Your task to perform on an android device: Go to settings Image 0: 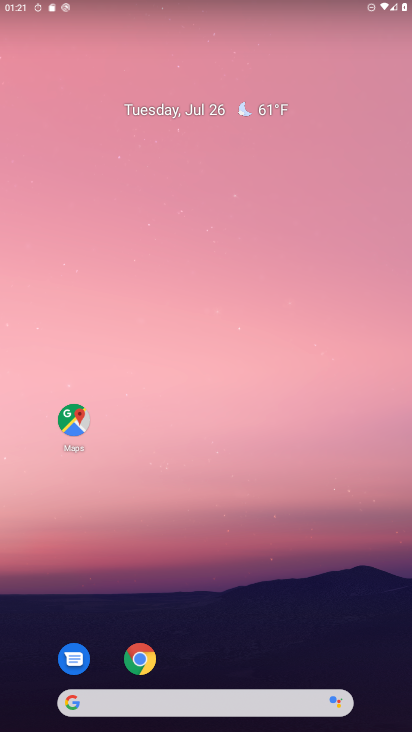
Step 0: drag from (96, 562) to (196, 373)
Your task to perform on an android device: Go to settings Image 1: 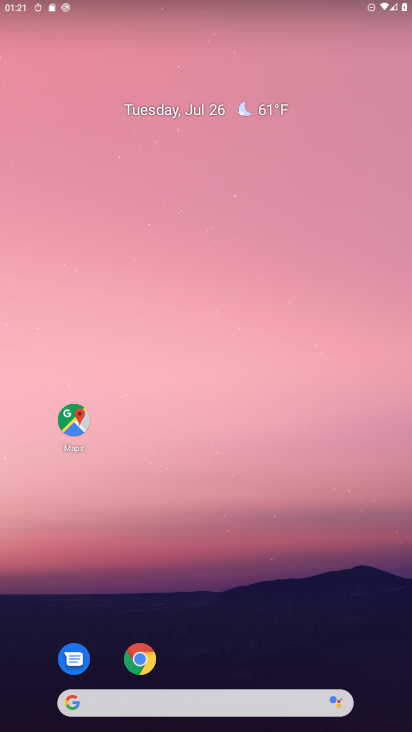
Step 1: drag from (85, 550) to (222, 265)
Your task to perform on an android device: Go to settings Image 2: 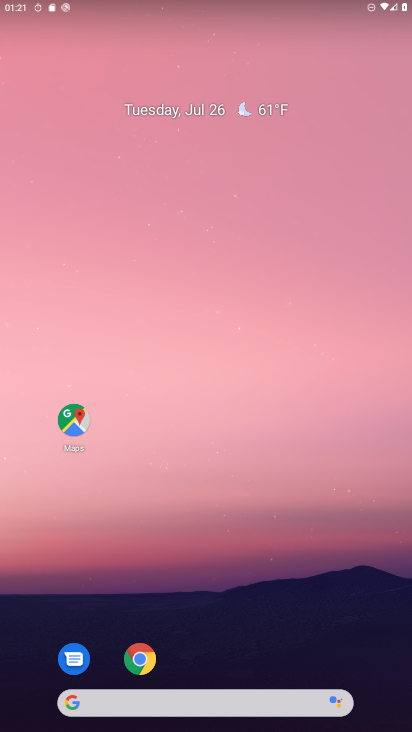
Step 2: drag from (28, 696) to (246, 158)
Your task to perform on an android device: Go to settings Image 3: 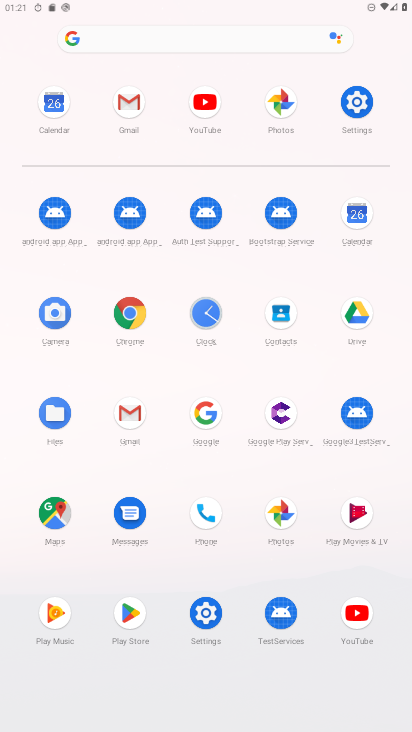
Step 3: click (208, 615)
Your task to perform on an android device: Go to settings Image 4: 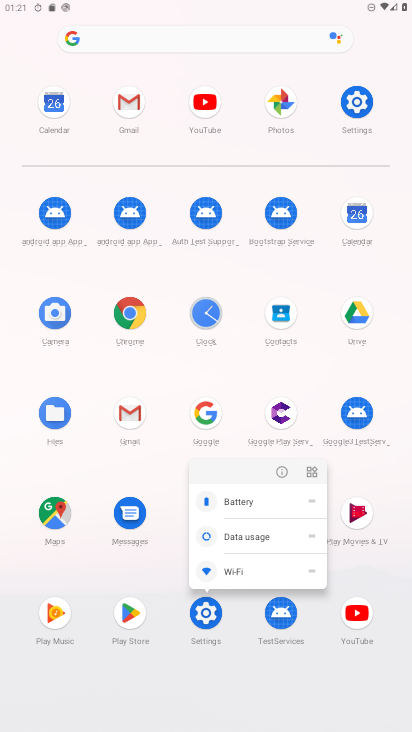
Step 4: click (209, 623)
Your task to perform on an android device: Go to settings Image 5: 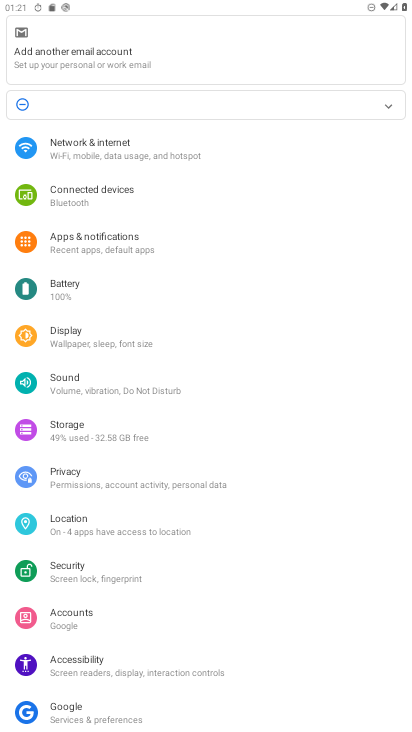
Step 5: task complete